Your task to perform on an android device: open app "Facebook" (install if not already installed) Image 0: 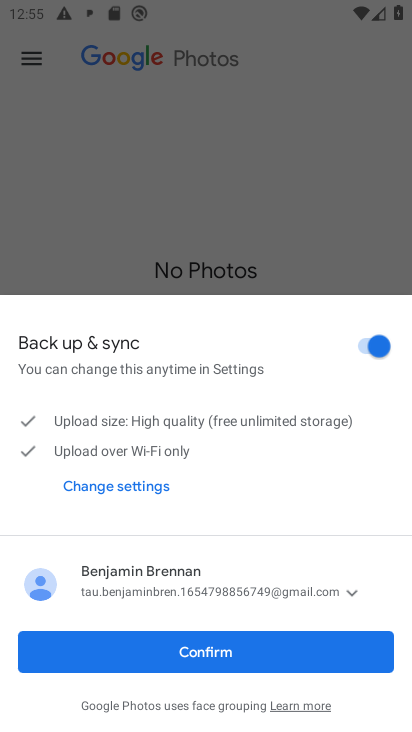
Step 0: press home button
Your task to perform on an android device: open app "Facebook" (install if not already installed) Image 1: 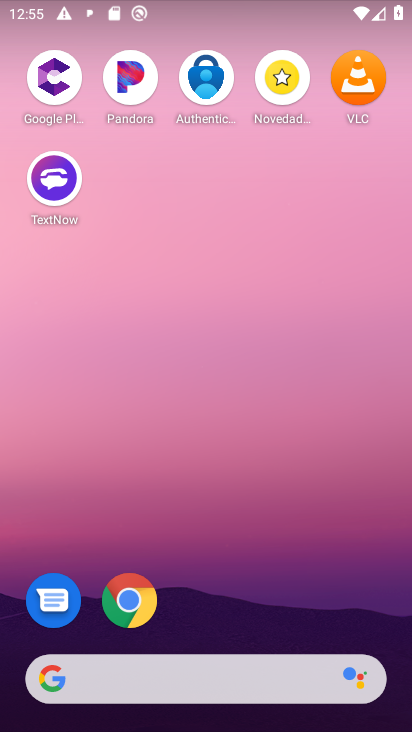
Step 1: drag from (240, 652) to (233, 212)
Your task to perform on an android device: open app "Facebook" (install if not already installed) Image 2: 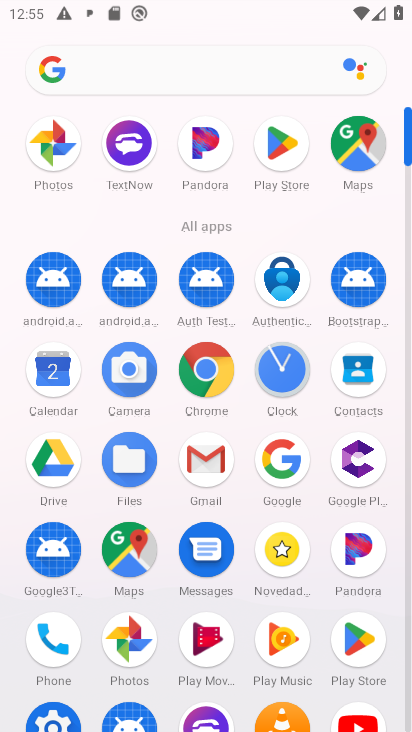
Step 2: click (267, 147)
Your task to perform on an android device: open app "Facebook" (install if not already installed) Image 3: 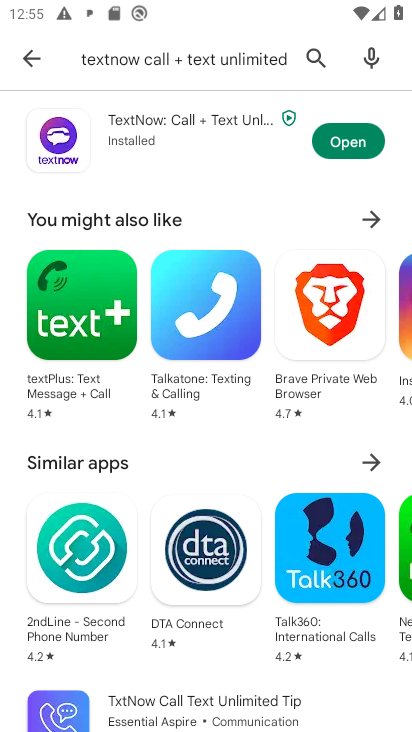
Step 3: click (311, 55)
Your task to perform on an android device: open app "Facebook" (install if not already installed) Image 4: 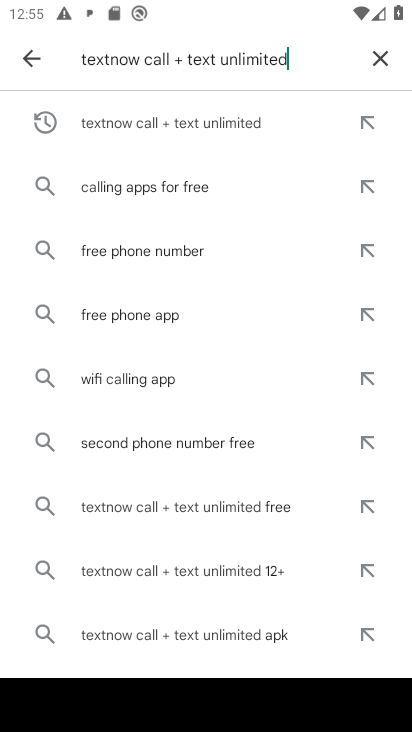
Step 4: click (384, 61)
Your task to perform on an android device: open app "Facebook" (install if not already installed) Image 5: 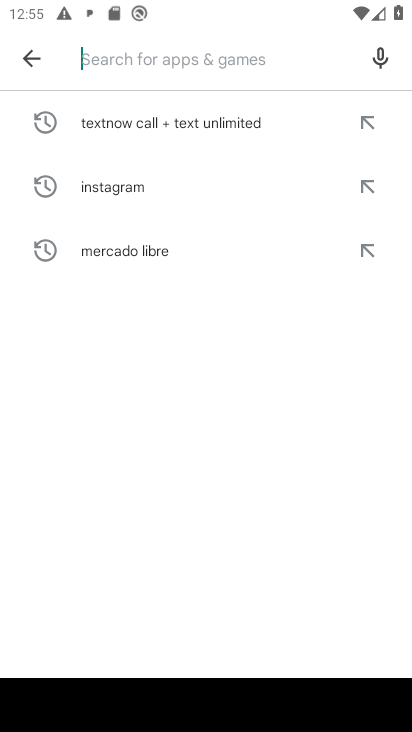
Step 5: type "Facebook"
Your task to perform on an android device: open app "Facebook" (install if not already installed) Image 6: 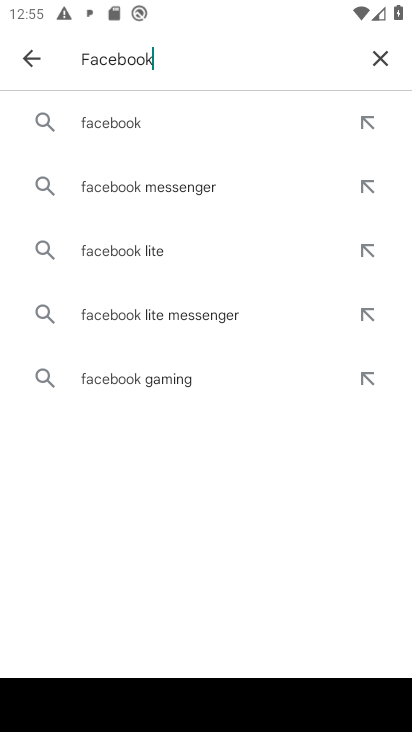
Step 6: click (92, 119)
Your task to perform on an android device: open app "Facebook" (install if not already installed) Image 7: 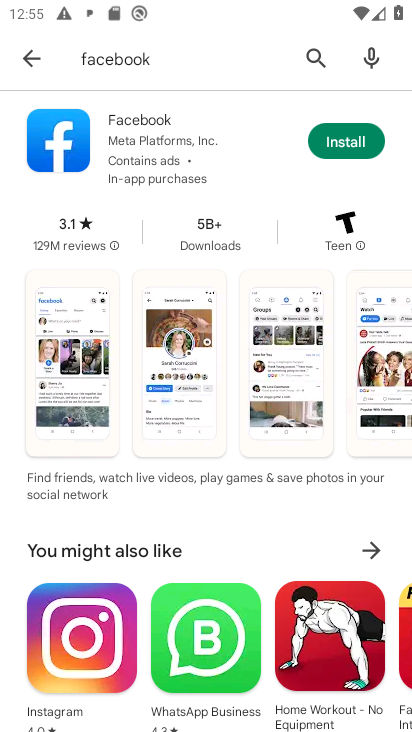
Step 7: click (365, 150)
Your task to perform on an android device: open app "Facebook" (install if not already installed) Image 8: 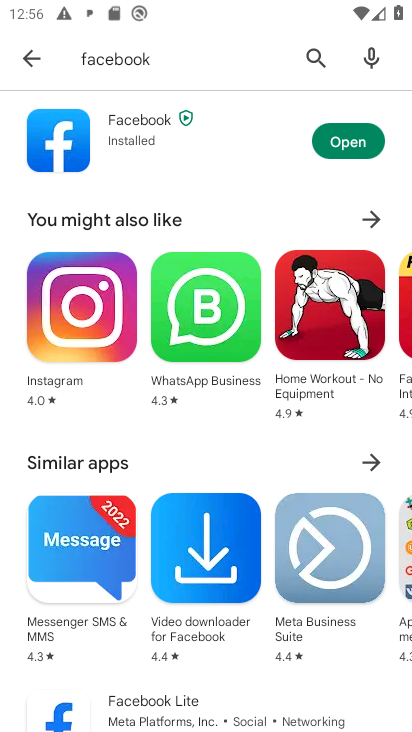
Step 8: click (350, 148)
Your task to perform on an android device: open app "Facebook" (install if not already installed) Image 9: 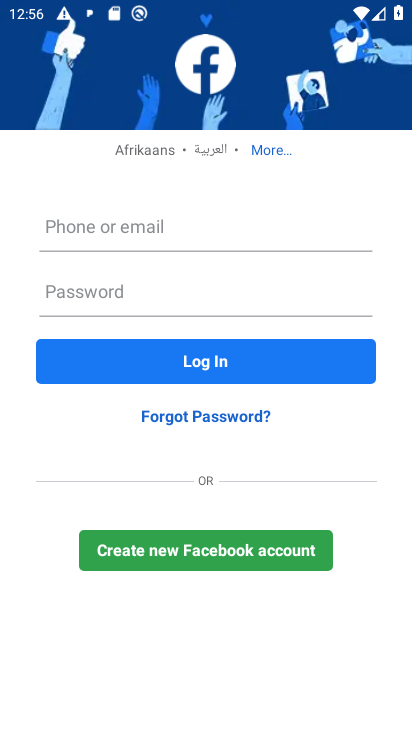
Step 9: task complete